Your task to perform on an android device: add a contact Image 0: 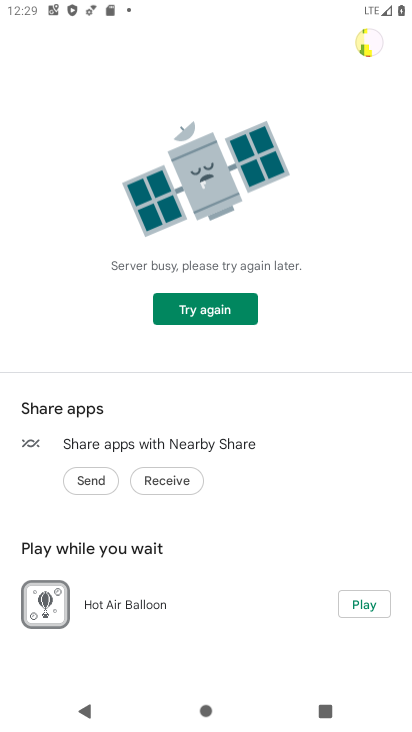
Step 0: press home button
Your task to perform on an android device: add a contact Image 1: 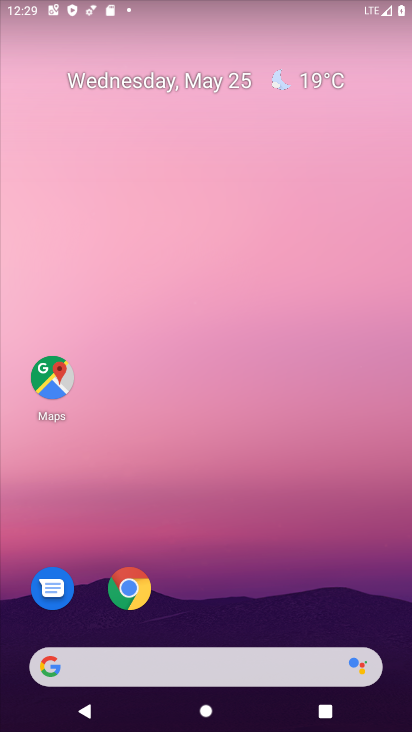
Step 1: drag from (178, 644) to (278, 169)
Your task to perform on an android device: add a contact Image 2: 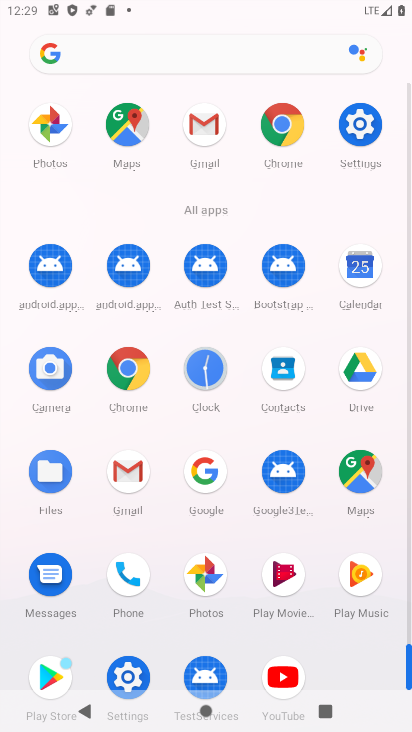
Step 2: click (288, 367)
Your task to perform on an android device: add a contact Image 3: 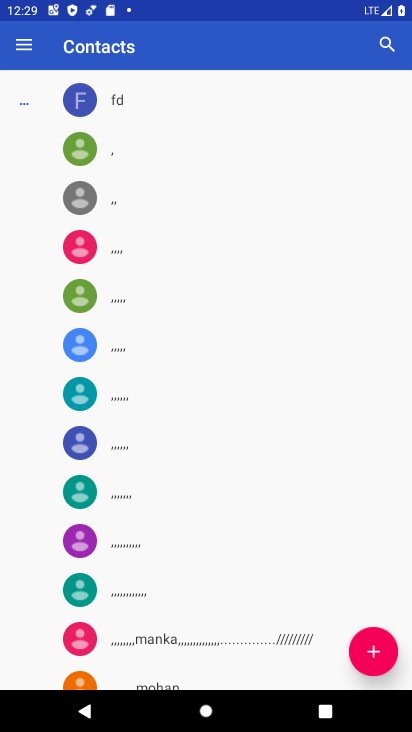
Step 3: click (374, 663)
Your task to perform on an android device: add a contact Image 4: 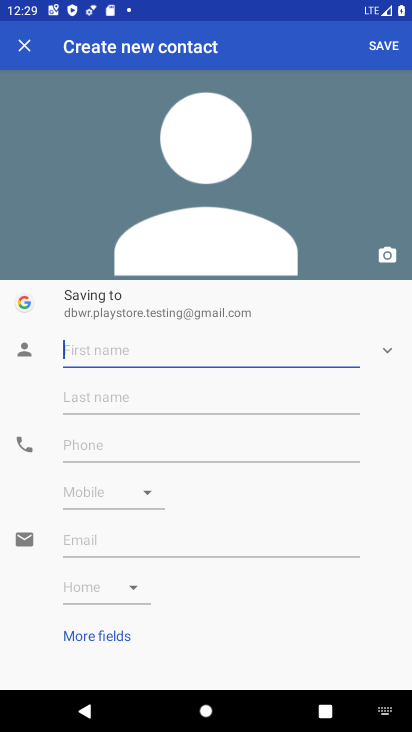
Step 4: type "zzzz"
Your task to perform on an android device: add a contact Image 5: 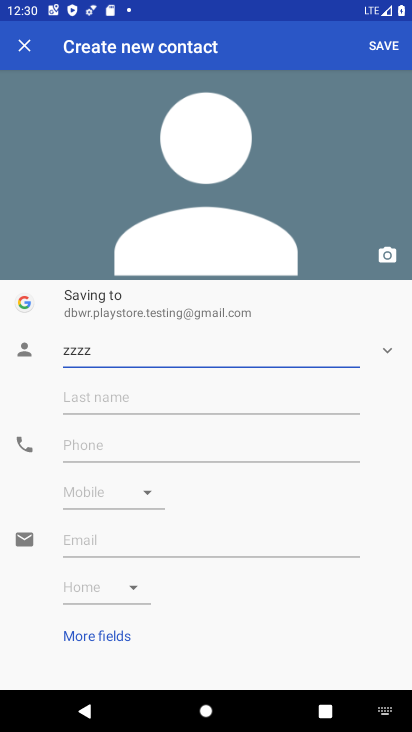
Step 5: click (80, 439)
Your task to perform on an android device: add a contact Image 6: 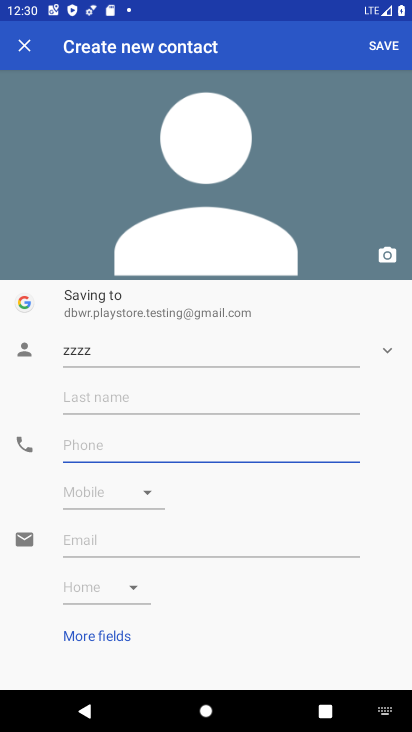
Step 6: type "23235566"
Your task to perform on an android device: add a contact Image 7: 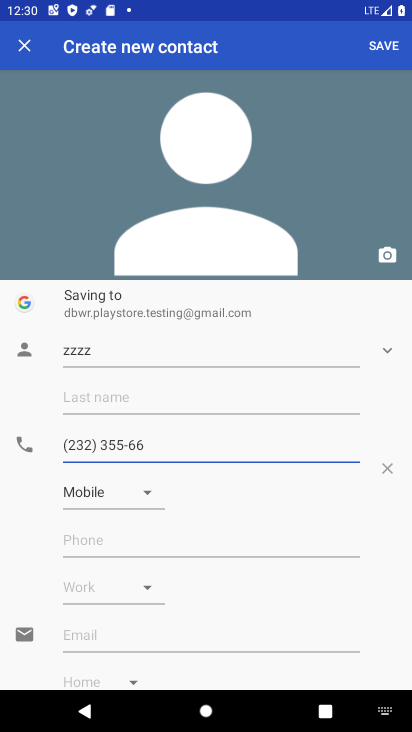
Step 7: type "23"
Your task to perform on an android device: add a contact Image 8: 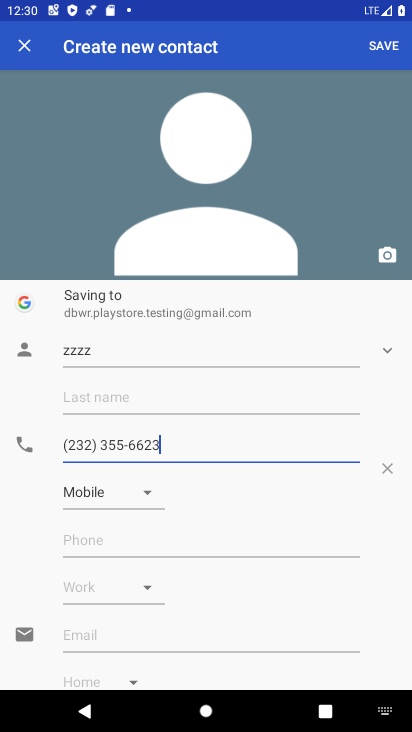
Step 8: click (386, 48)
Your task to perform on an android device: add a contact Image 9: 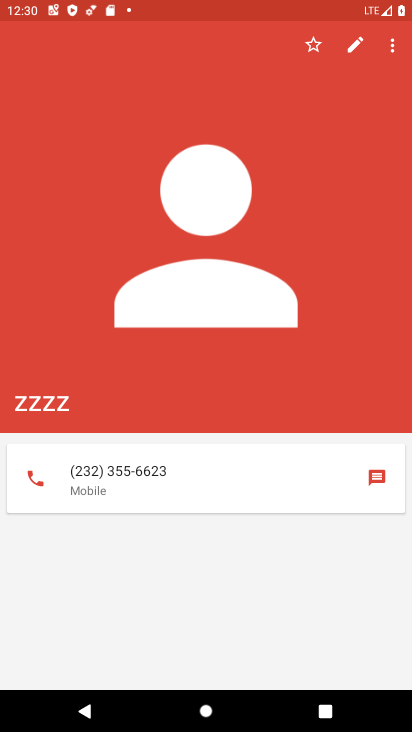
Step 9: task complete